Your task to perform on an android device: Go to notification settings Image 0: 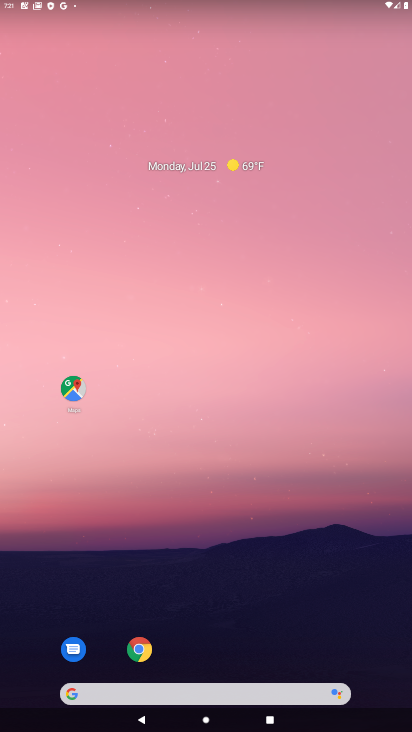
Step 0: drag from (220, 517) to (243, 39)
Your task to perform on an android device: Go to notification settings Image 1: 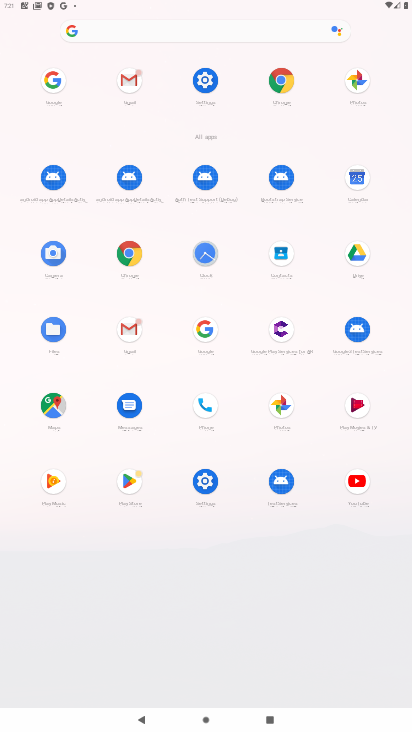
Step 1: click (205, 84)
Your task to perform on an android device: Go to notification settings Image 2: 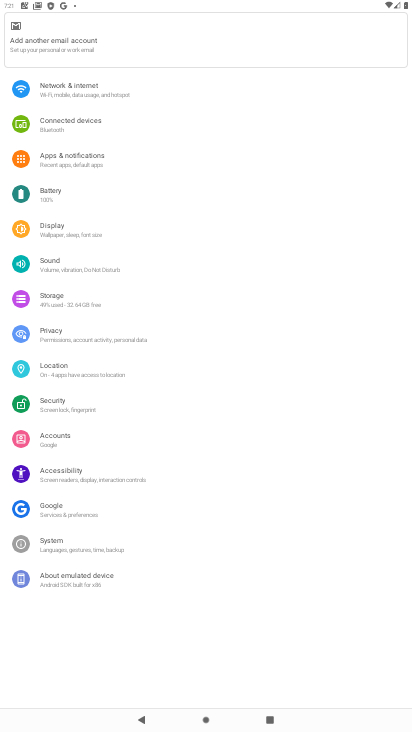
Step 2: click (68, 160)
Your task to perform on an android device: Go to notification settings Image 3: 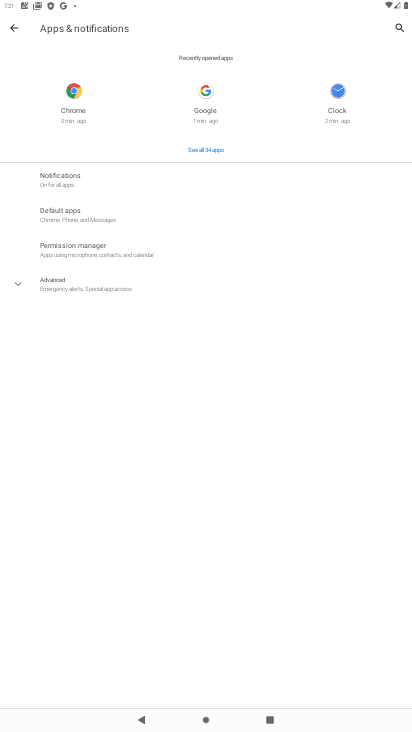
Step 3: click (67, 173)
Your task to perform on an android device: Go to notification settings Image 4: 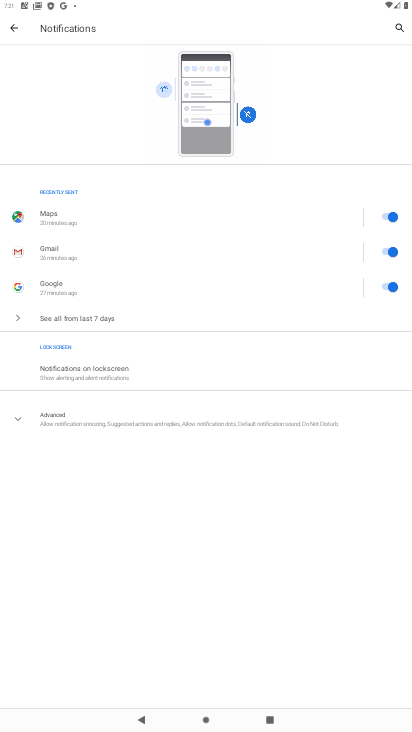
Step 4: task complete